Your task to perform on an android device: Search for "logitech g pro" on target.com, select the first entry, and add it to the cart. Image 0: 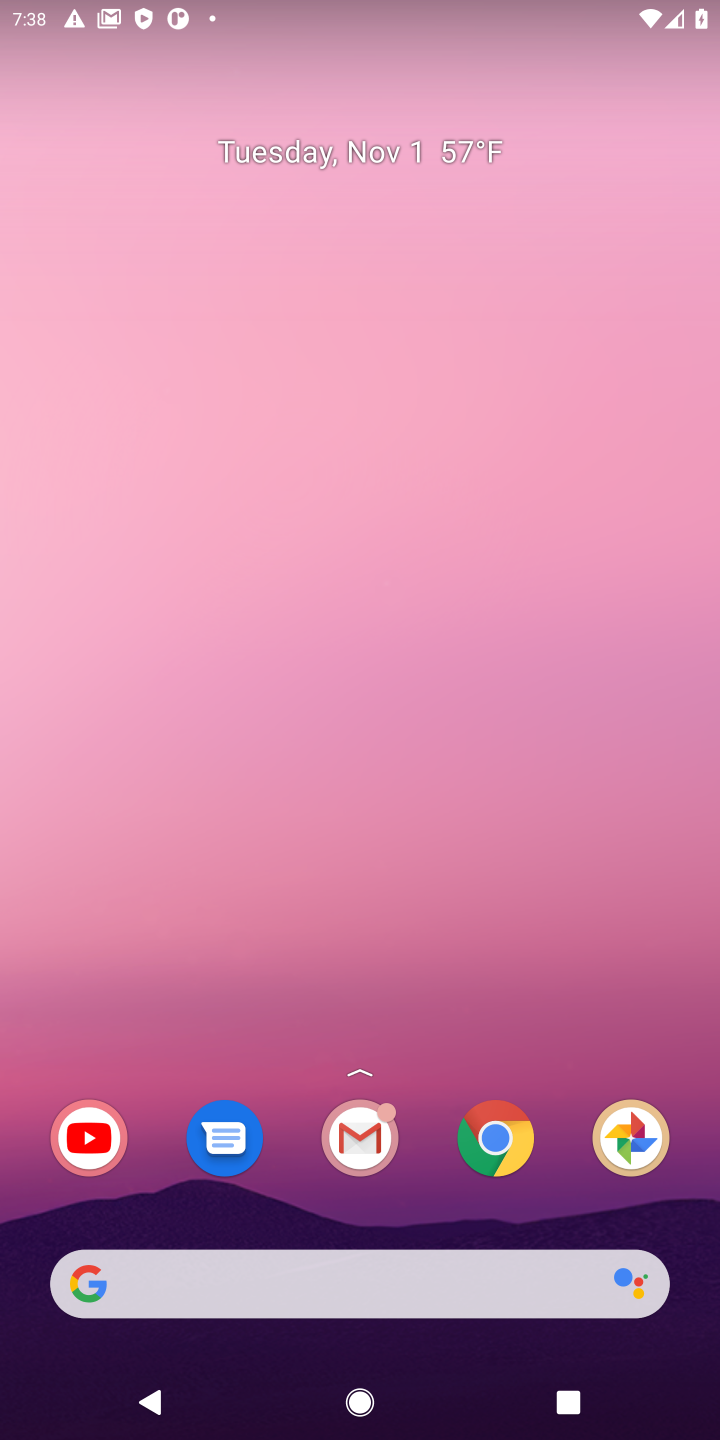
Step 0: click (484, 1145)
Your task to perform on an android device: Search for "logitech g pro" on target.com, select the first entry, and add it to the cart. Image 1: 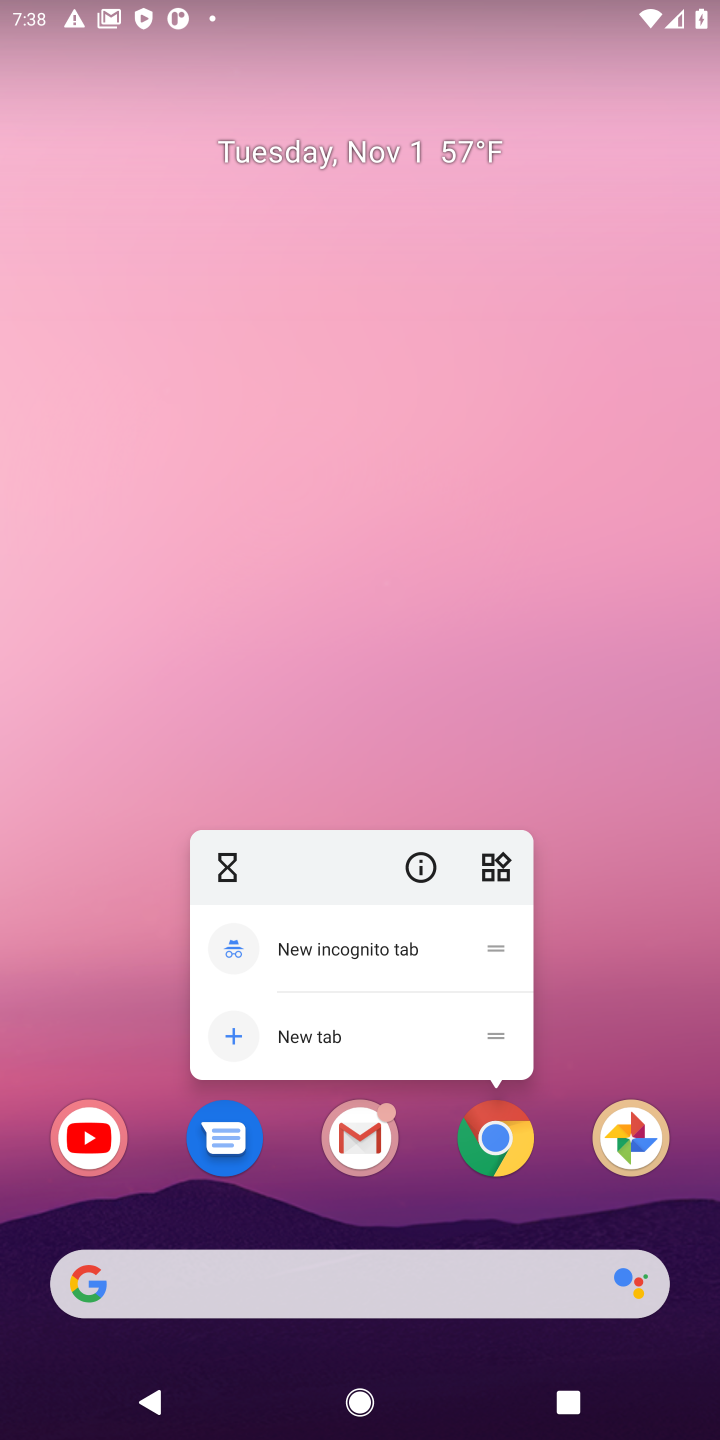
Step 1: click (488, 1150)
Your task to perform on an android device: Search for "logitech g pro" on target.com, select the first entry, and add it to the cart. Image 2: 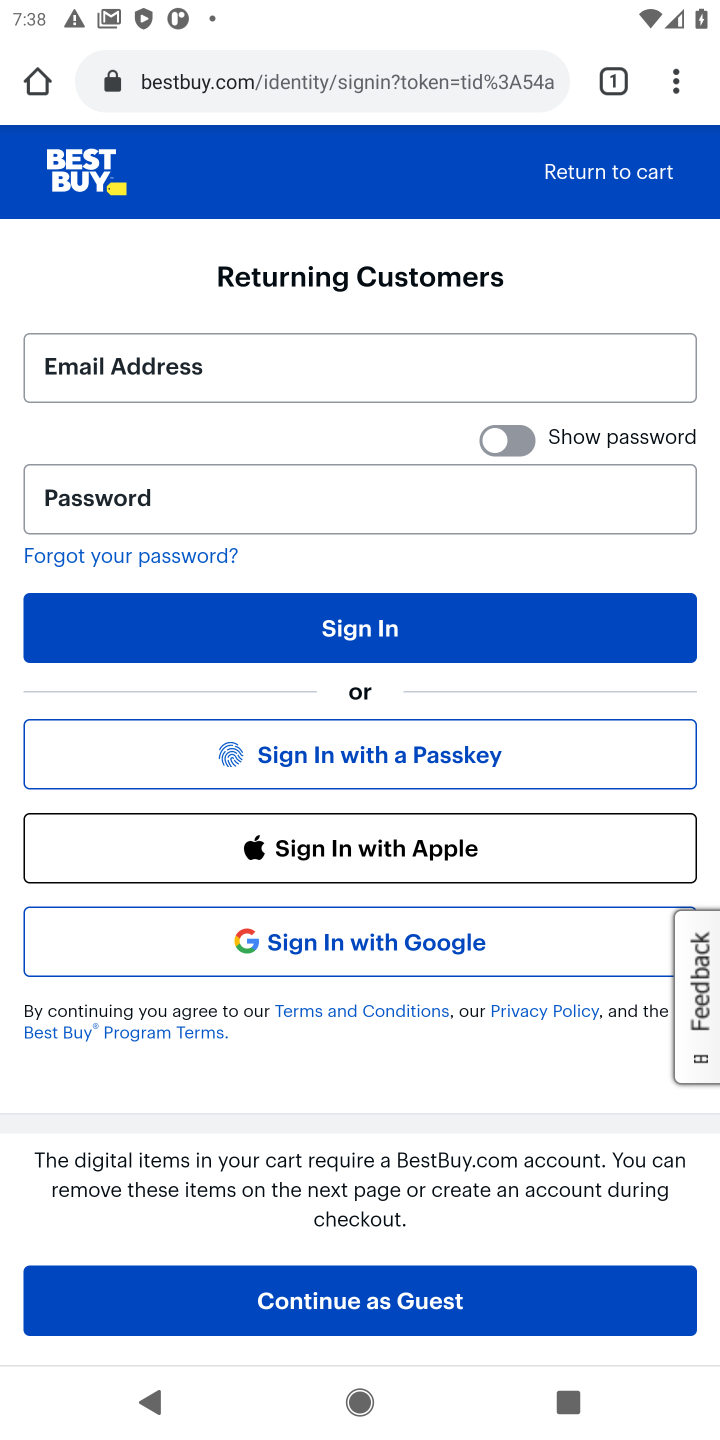
Step 2: click (258, 73)
Your task to perform on an android device: Search for "logitech g pro" on target.com, select the first entry, and add it to the cart. Image 3: 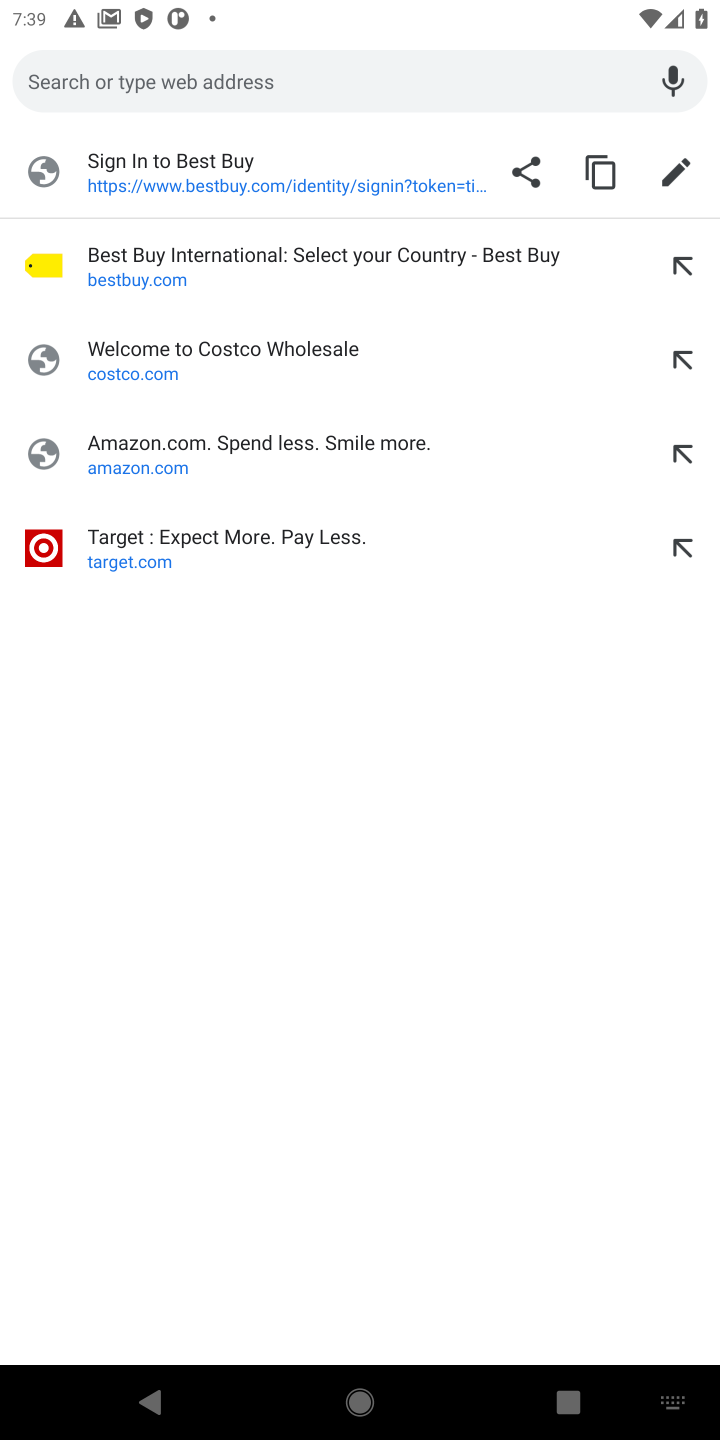
Step 3: click (190, 560)
Your task to perform on an android device: Search for "logitech g pro" on target.com, select the first entry, and add it to the cart. Image 4: 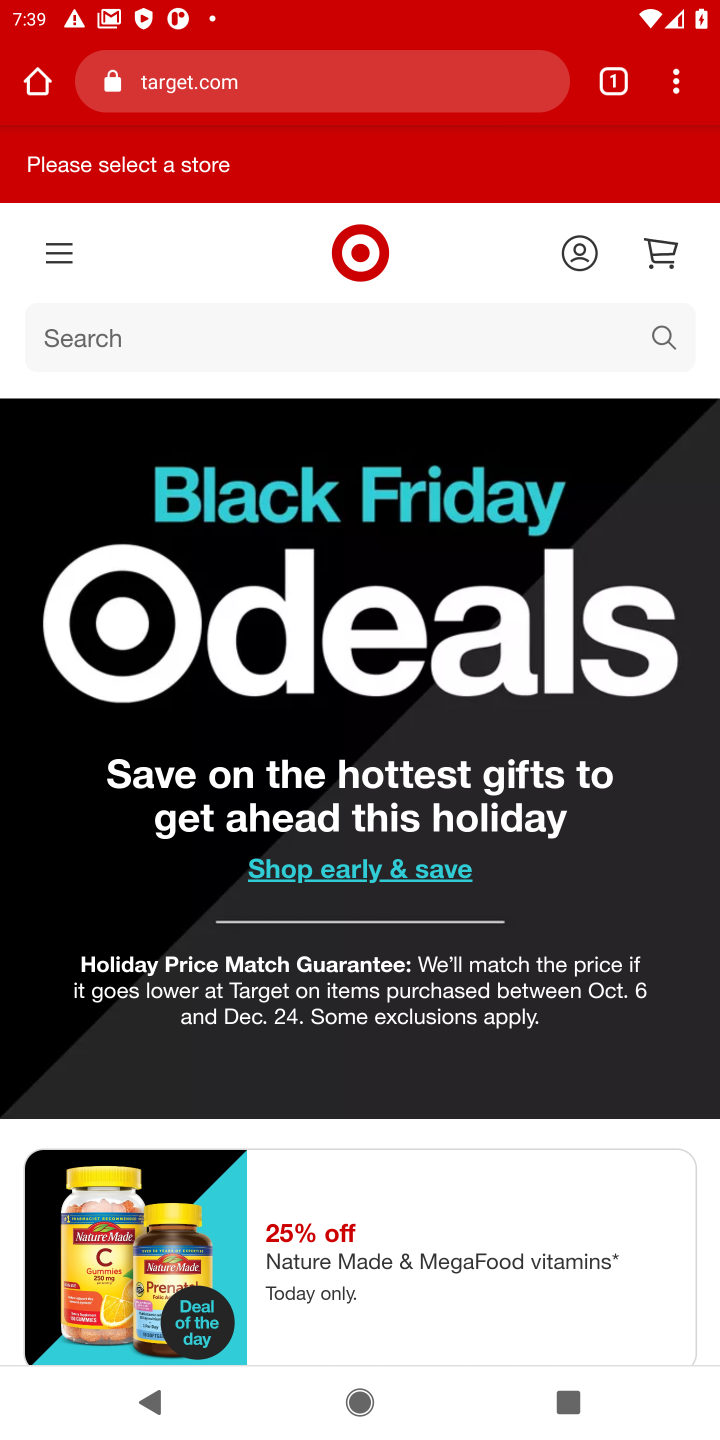
Step 4: click (658, 337)
Your task to perform on an android device: Search for "logitech g pro" on target.com, select the first entry, and add it to the cart. Image 5: 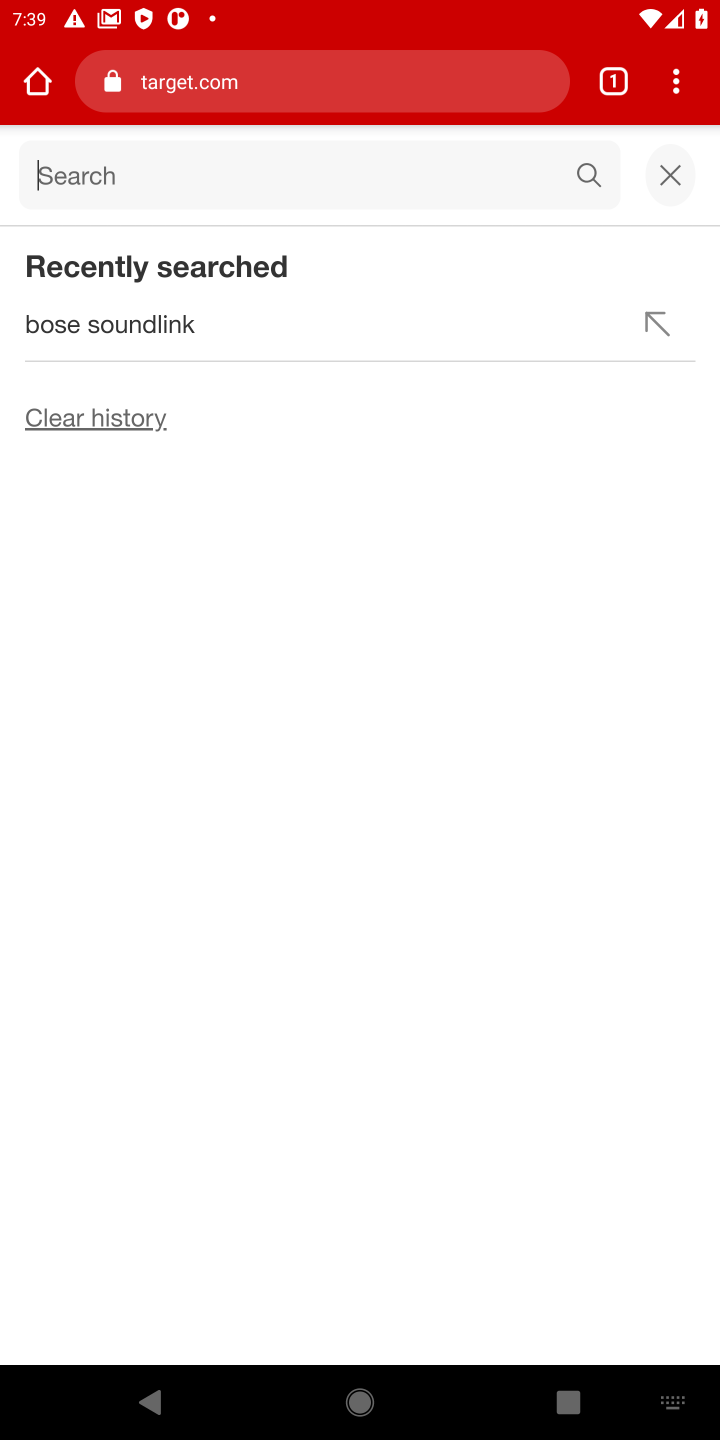
Step 5: type "logitech g pro"
Your task to perform on an android device: Search for "logitech g pro" on target.com, select the first entry, and add it to the cart. Image 6: 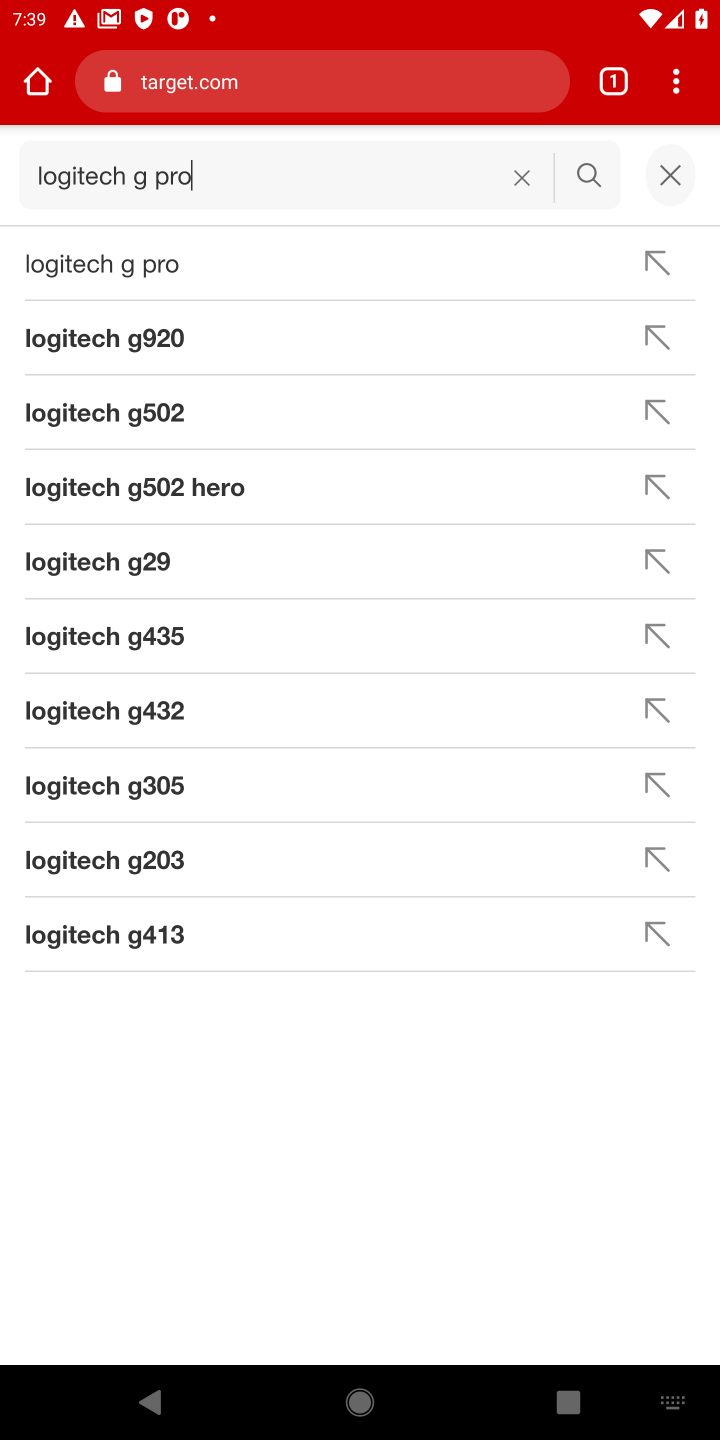
Step 6: click (107, 279)
Your task to perform on an android device: Search for "logitech g pro" on target.com, select the first entry, and add it to the cart. Image 7: 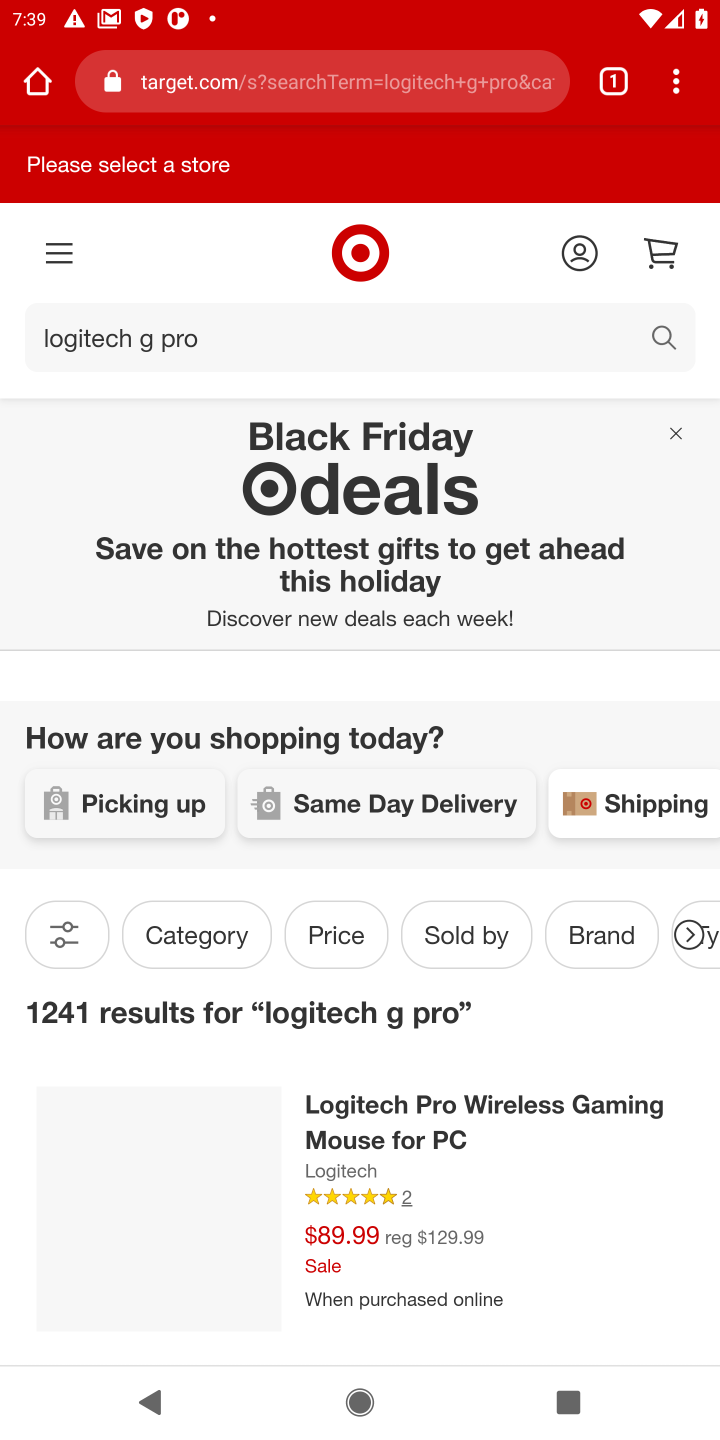
Step 7: drag from (283, 1168) to (303, 666)
Your task to perform on an android device: Search for "logitech g pro" on target.com, select the first entry, and add it to the cart. Image 8: 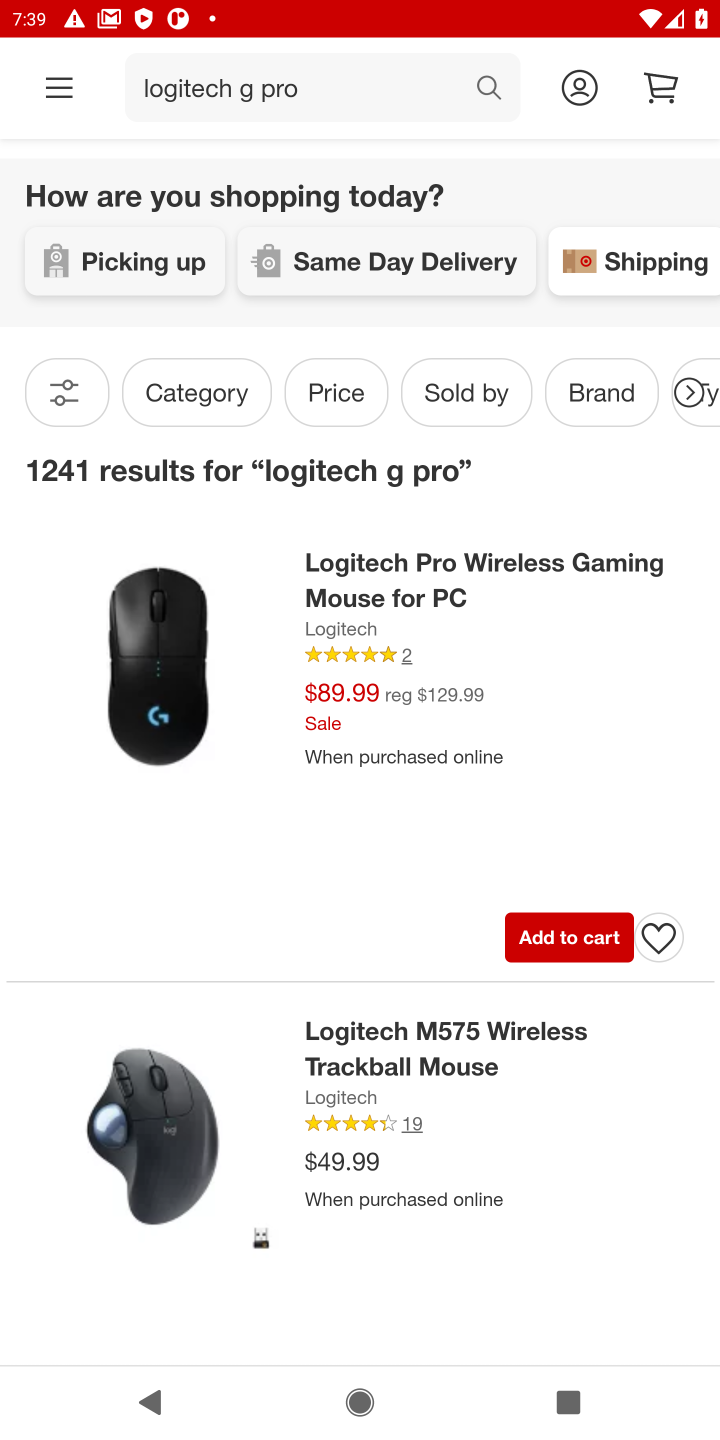
Step 8: click (193, 686)
Your task to perform on an android device: Search for "logitech g pro" on target.com, select the first entry, and add it to the cart. Image 9: 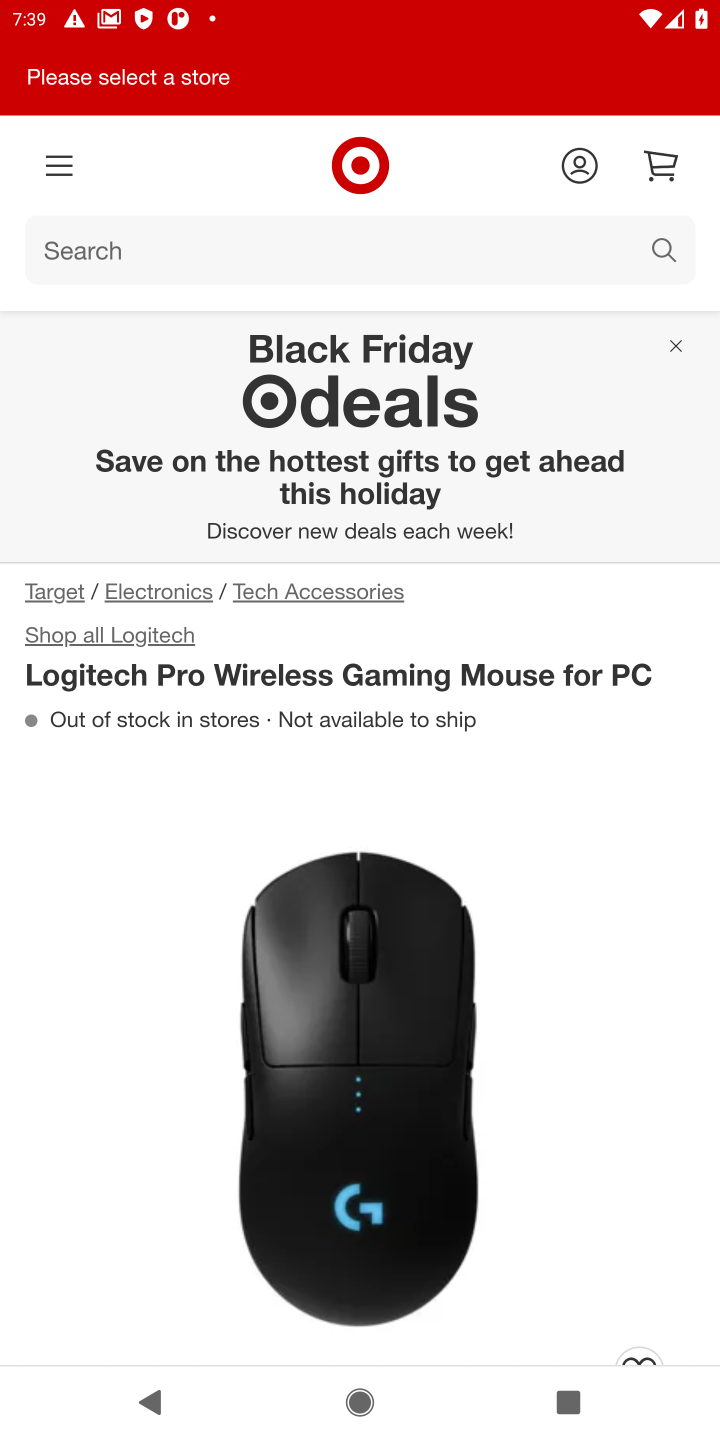
Step 9: drag from (323, 973) to (303, 420)
Your task to perform on an android device: Search for "logitech g pro" on target.com, select the first entry, and add it to the cart. Image 10: 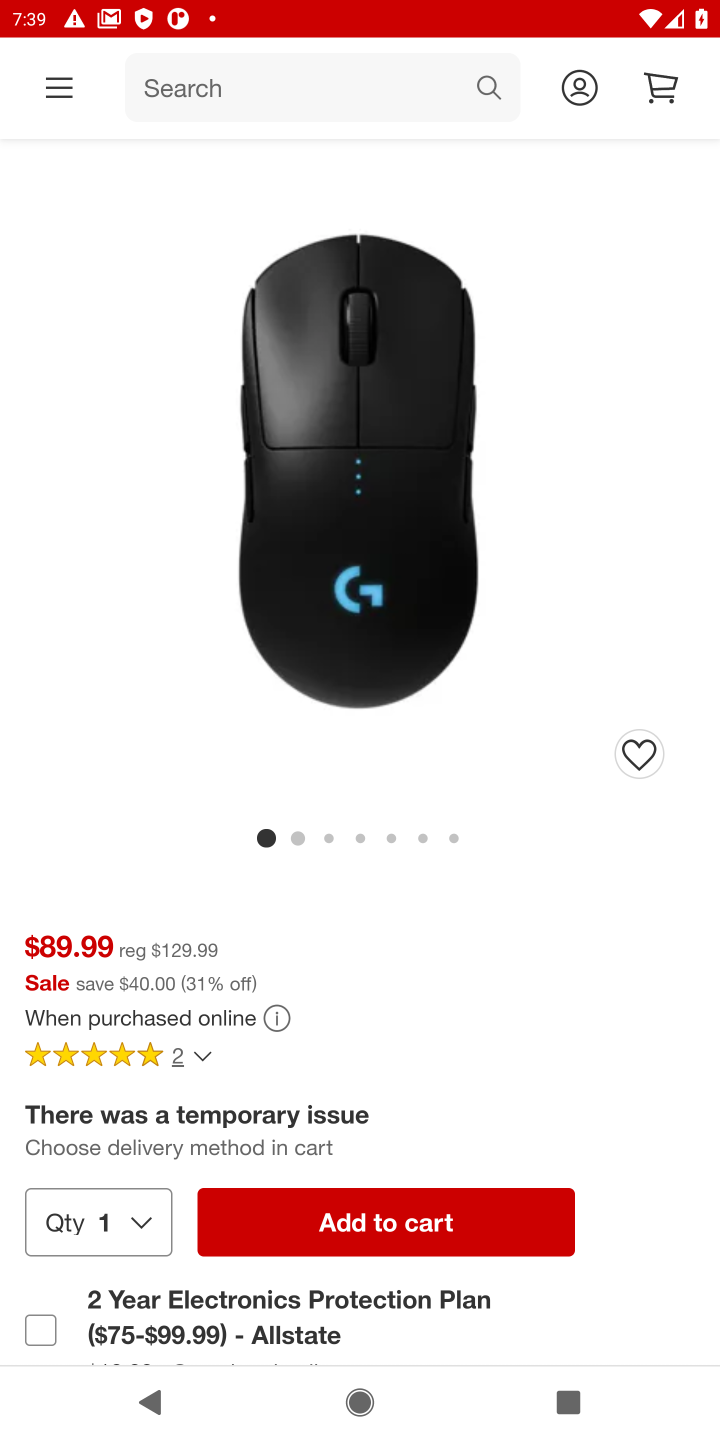
Step 10: click (369, 1233)
Your task to perform on an android device: Search for "logitech g pro" on target.com, select the first entry, and add it to the cart. Image 11: 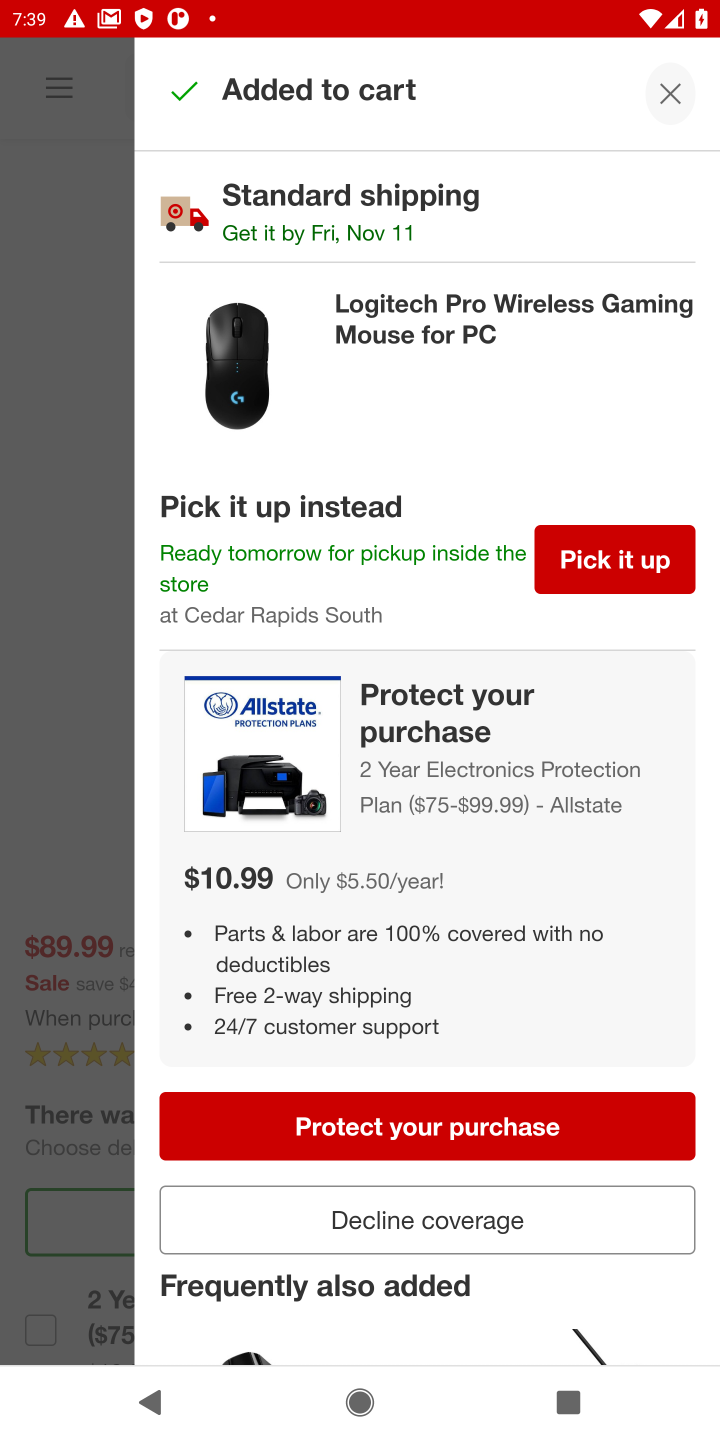
Step 11: task complete